Your task to perform on an android device: install app "DoorDash - Dasher" Image 0: 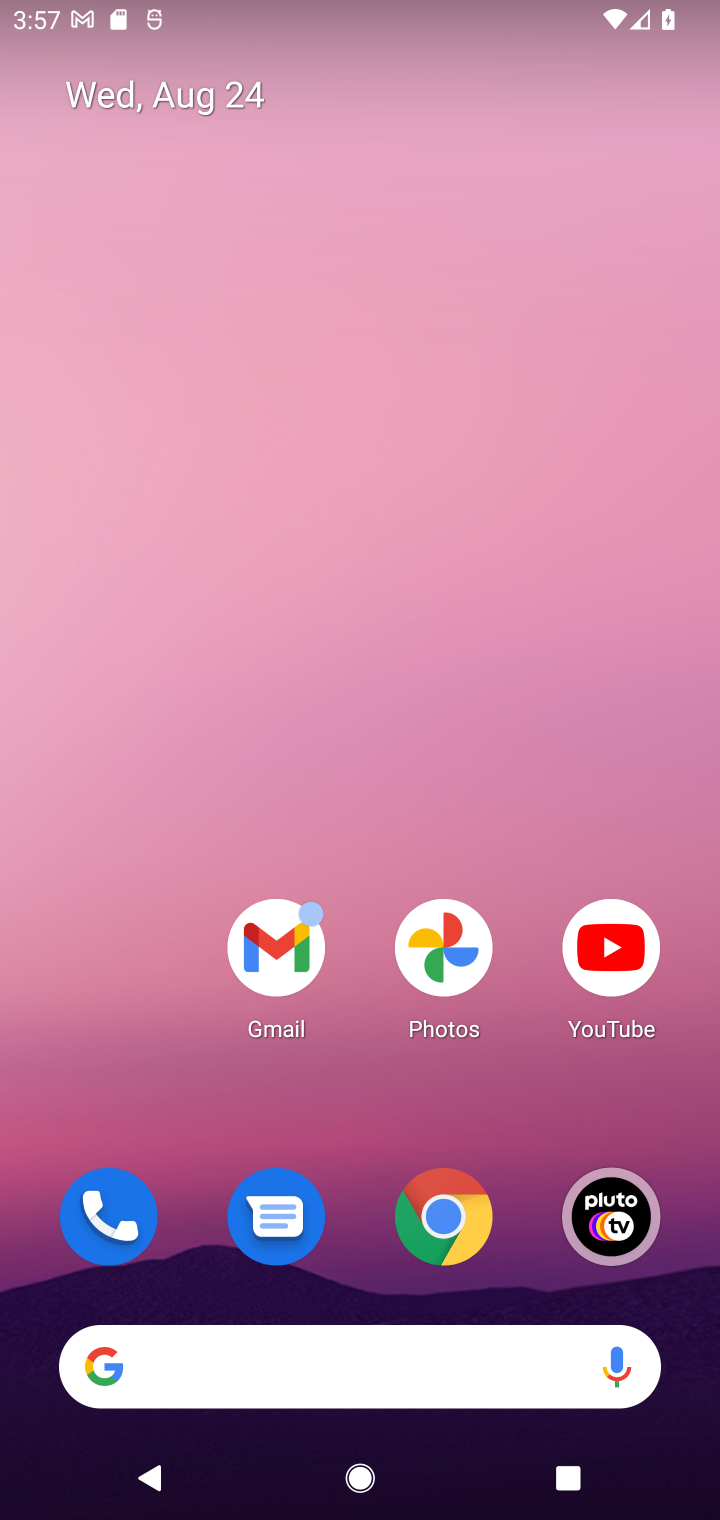
Step 0: drag from (364, 830) to (364, 130)
Your task to perform on an android device: install app "DoorDash - Dasher" Image 1: 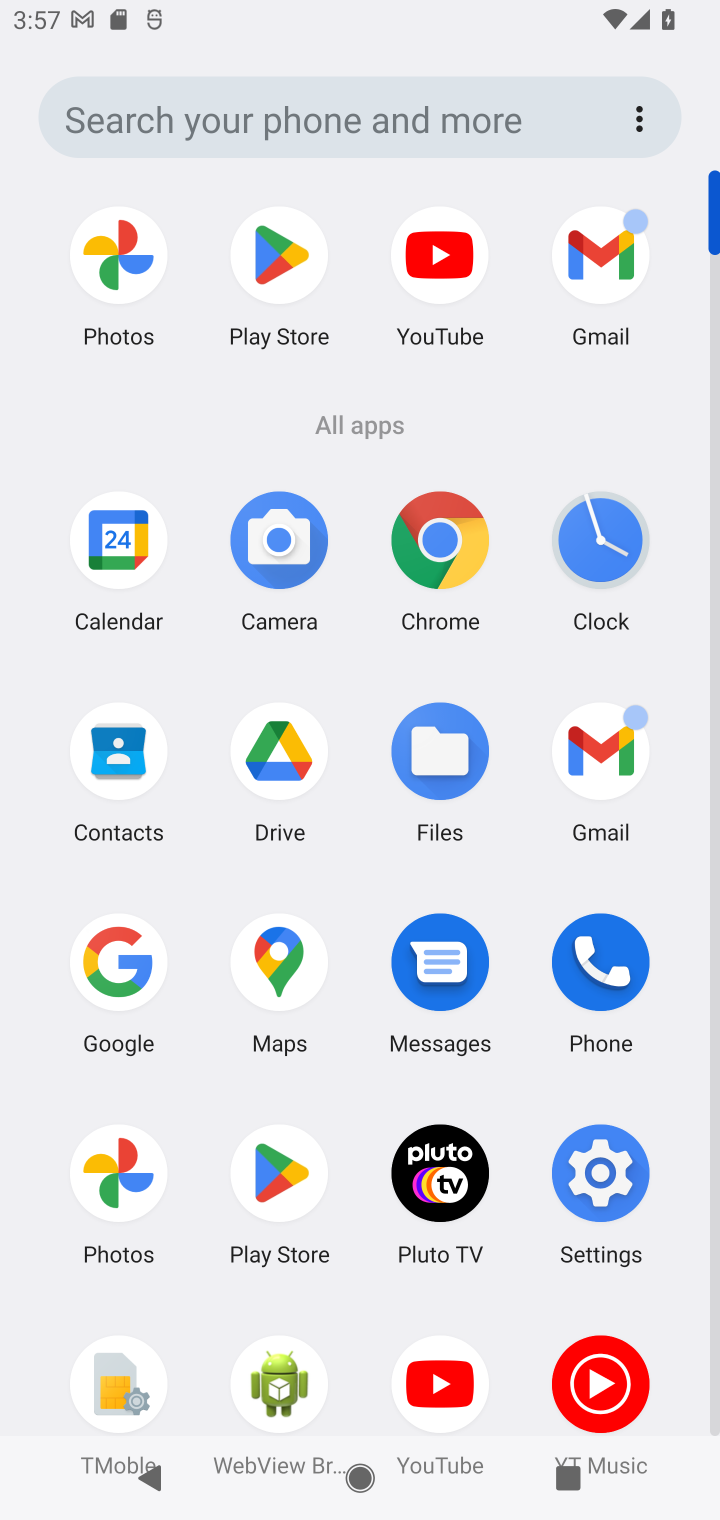
Step 1: click (284, 283)
Your task to perform on an android device: install app "DoorDash - Dasher" Image 2: 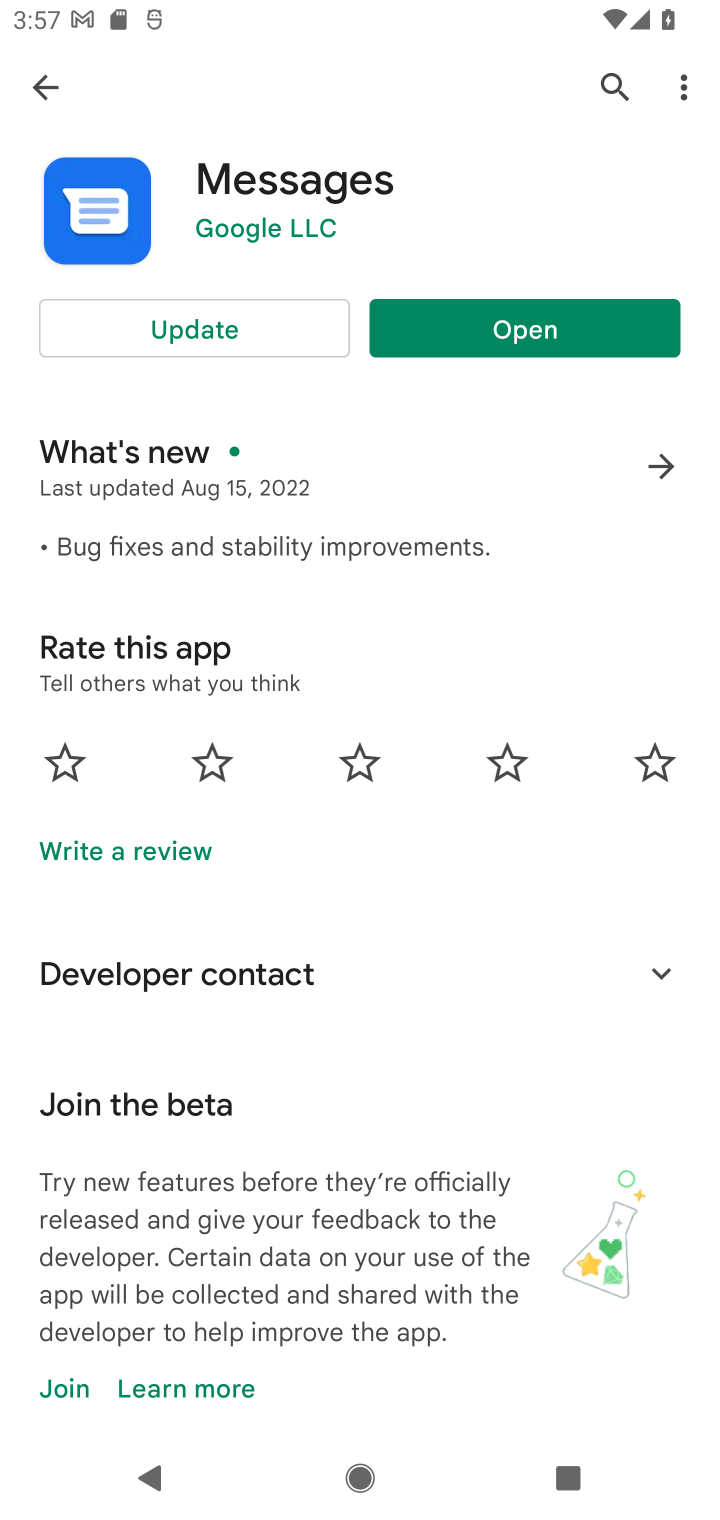
Step 2: click (602, 73)
Your task to perform on an android device: install app "DoorDash - Dasher" Image 3: 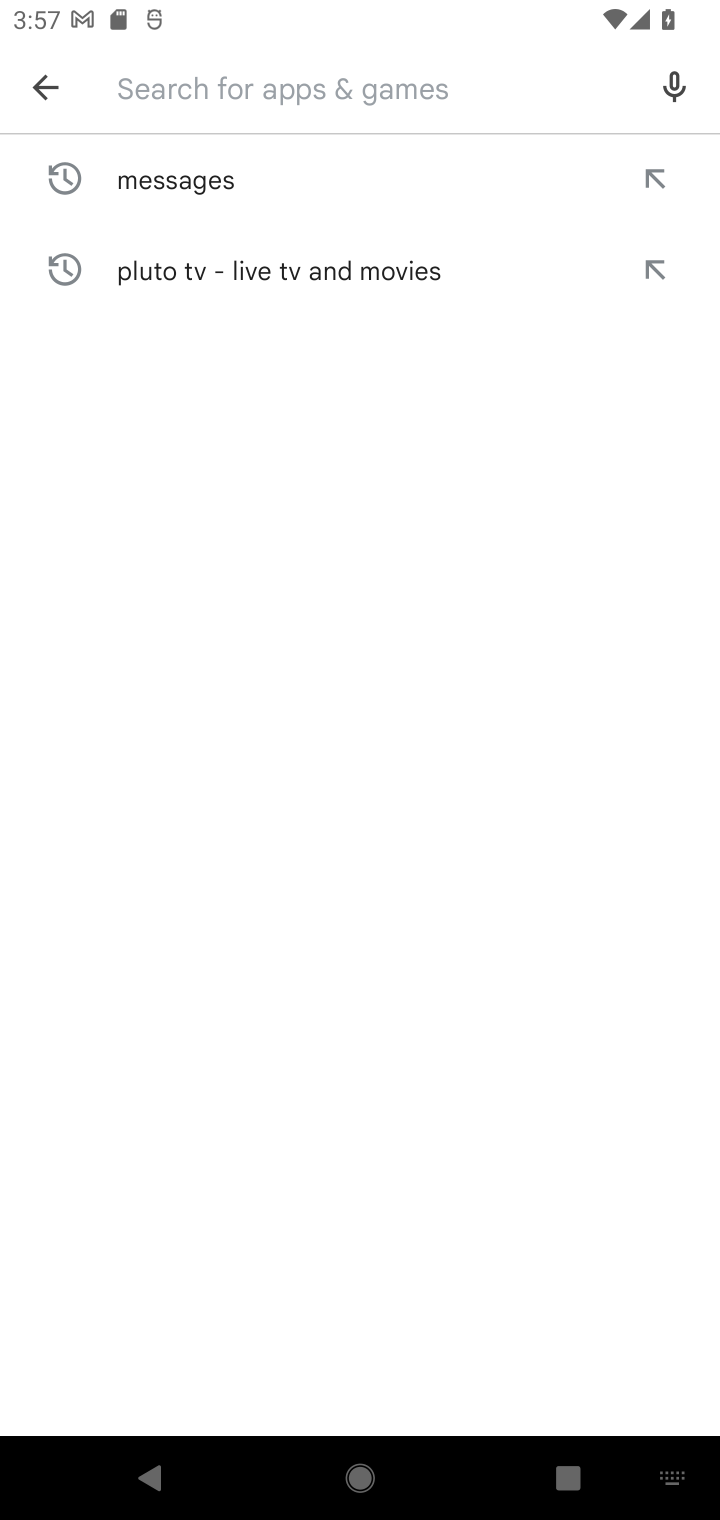
Step 3: type "DoorDash - Dasher"
Your task to perform on an android device: install app "DoorDash - Dasher" Image 4: 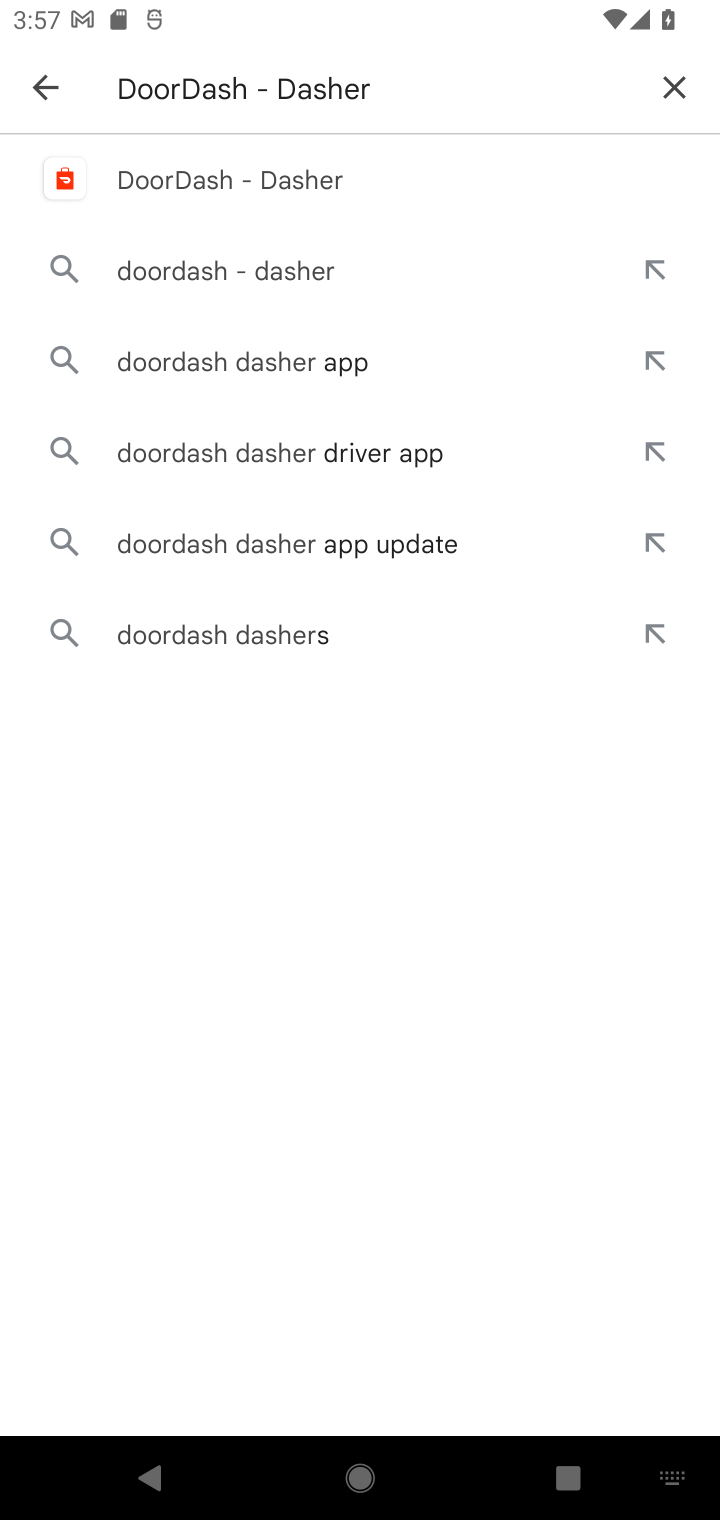
Step 4: click (309, 161)
Your task to perform on an android device: install app "DoorDash - Dasher" Image 5: 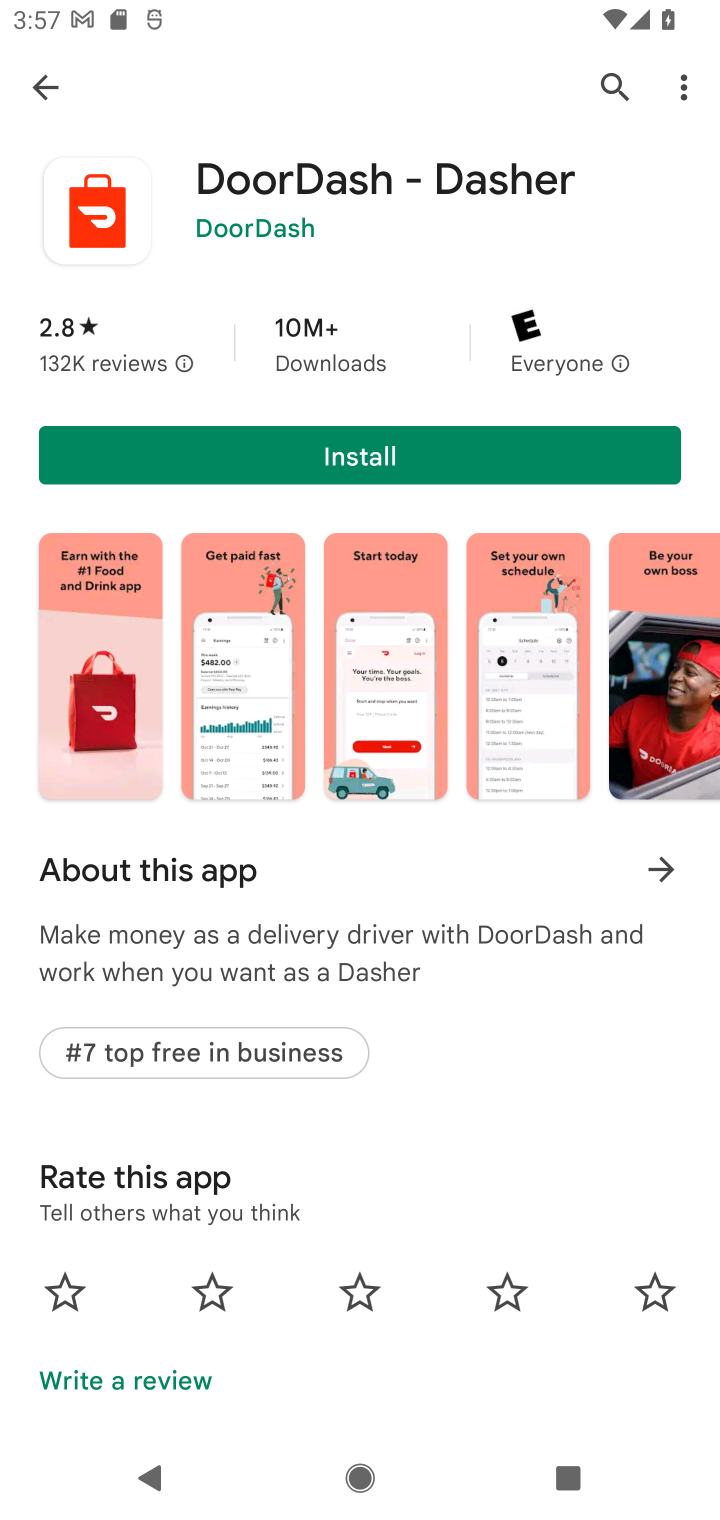
Step 5: click (429, 470)
Your task to perform on an android device: install app "DoorDash - Dasher" Image 6: 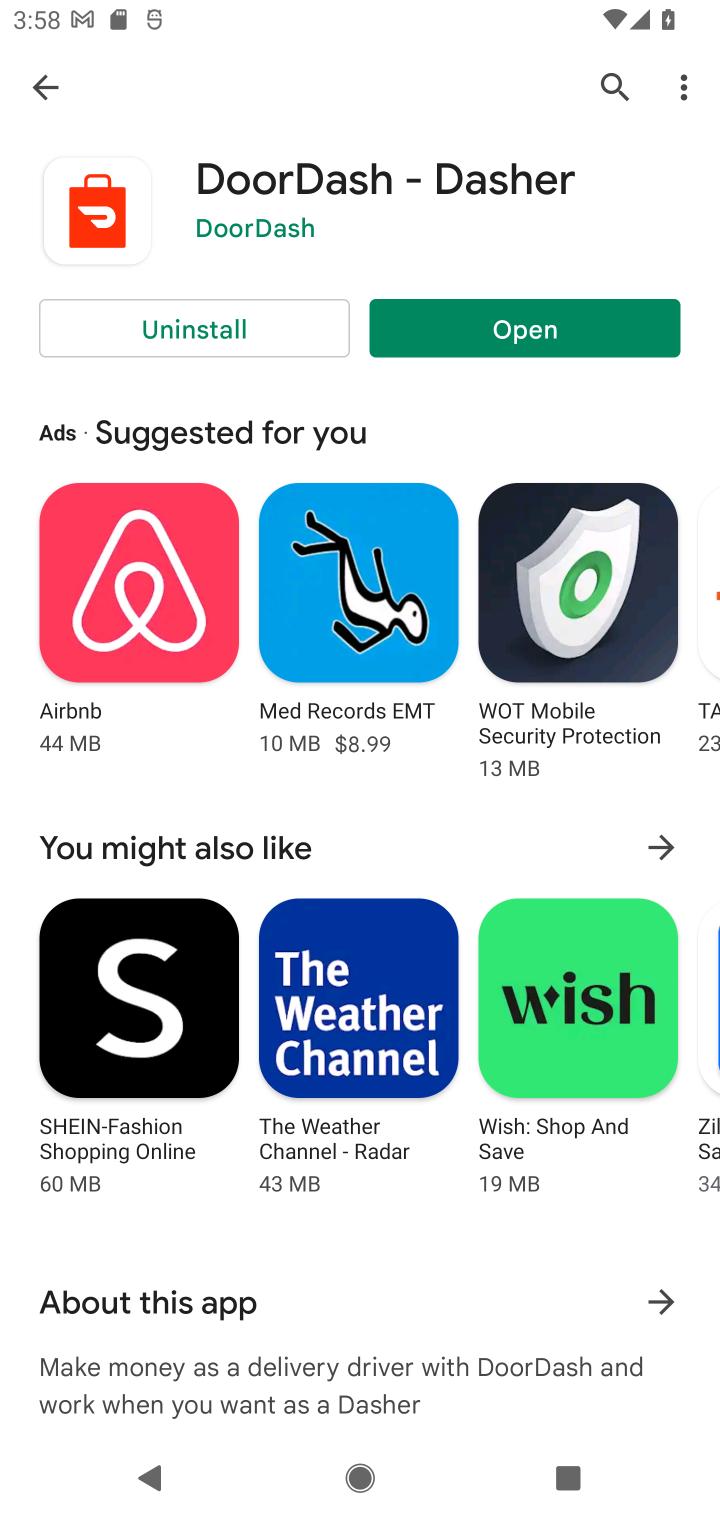
Step 6: task complete